Your task to perform on an android device: Go to display settings Image 0: 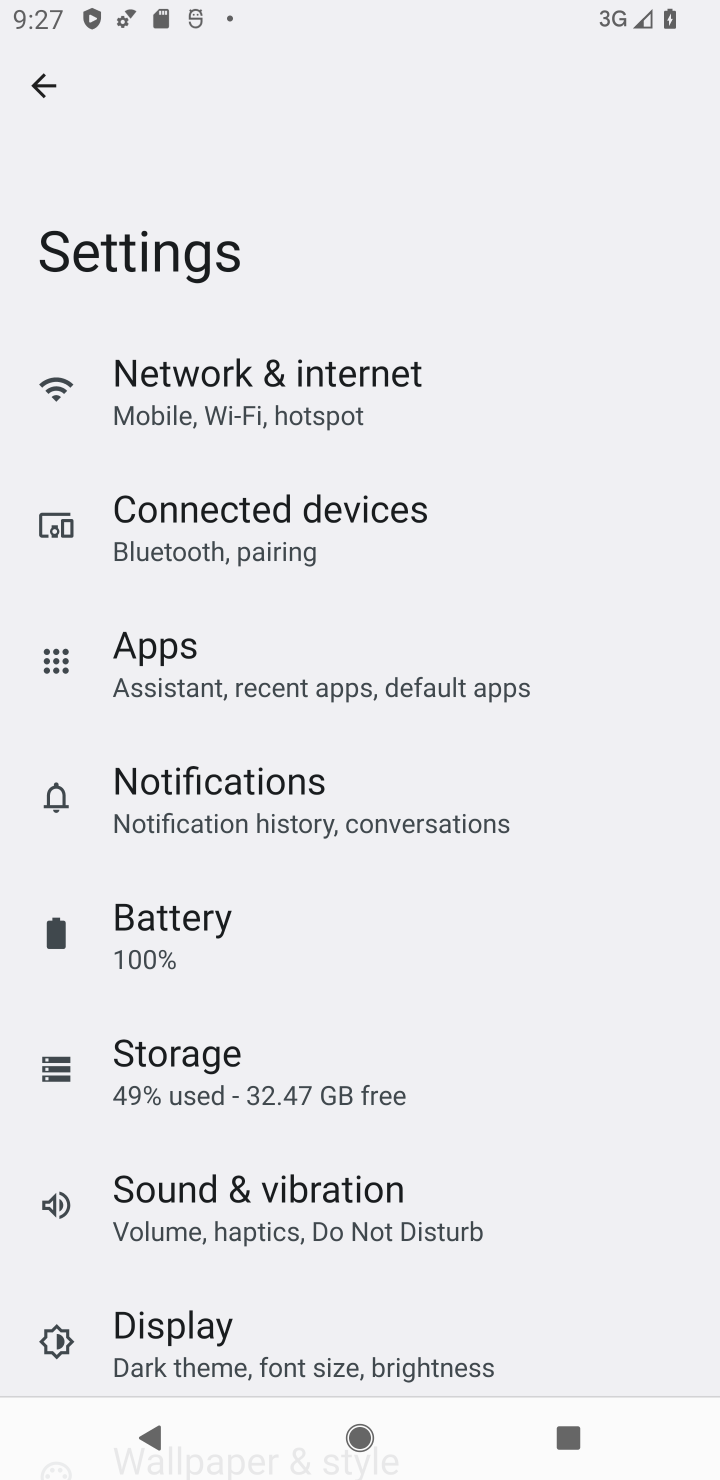
Step 0: click (313, 1368)
Your task to perform on an android device: Go to display settings Image 1: 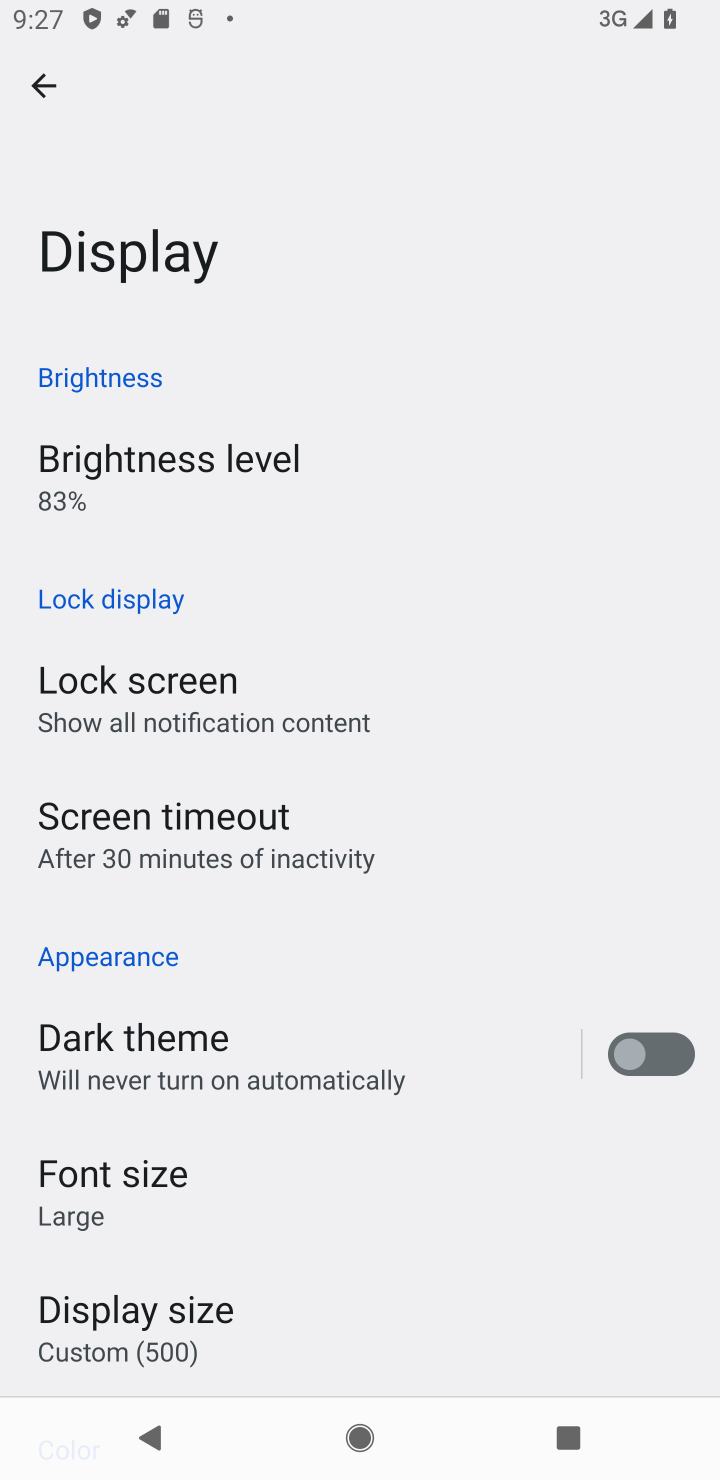
Step 1: click (238, 1322)
Your task to perform on an android device: Go to display settings Image 2: 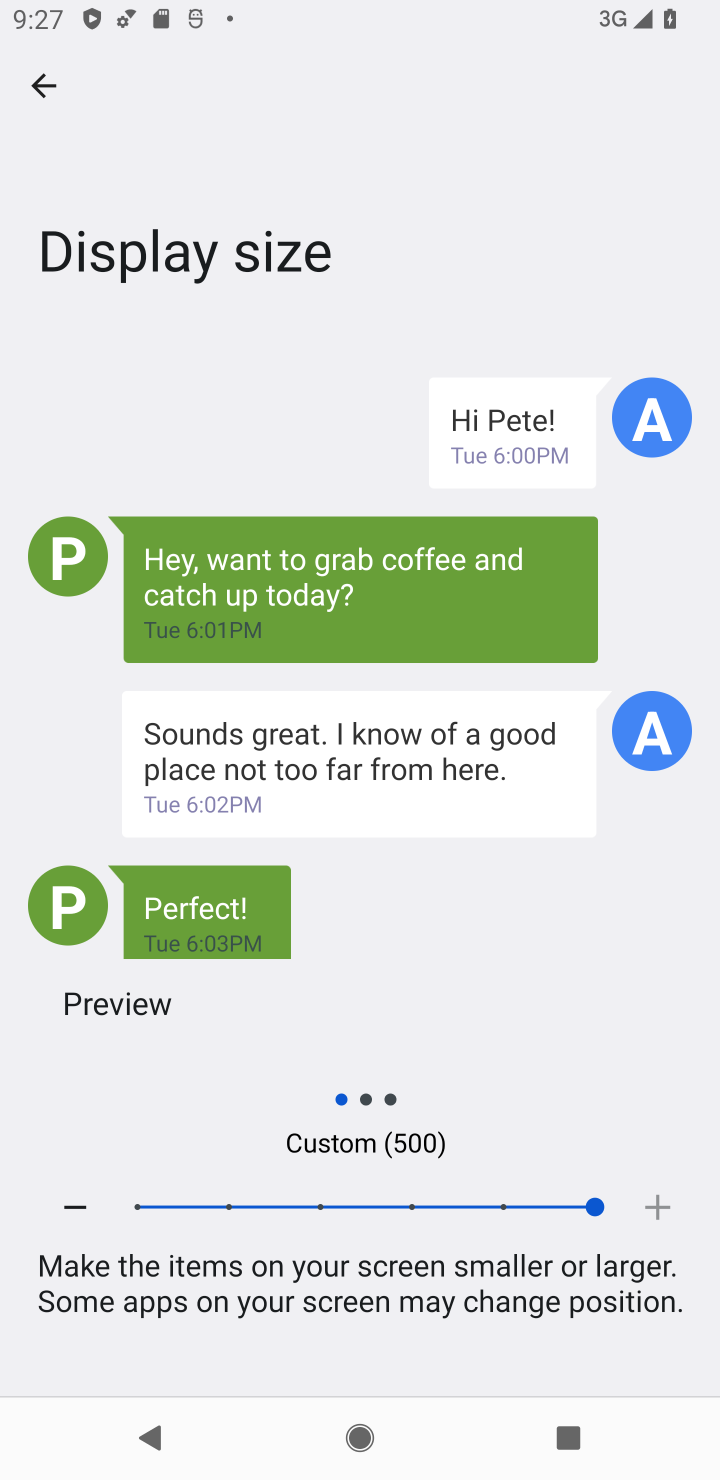
Step 2: task complete